Your task to perform on an android device: make emails show in primary in the gmail app Image 0: 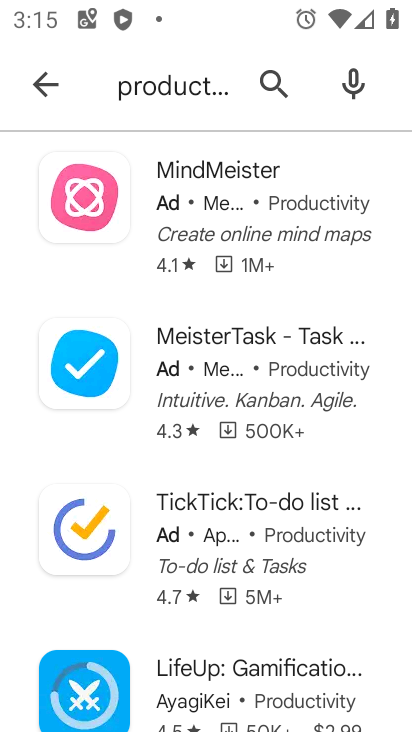
Step 0: press home button
Your task to perform on an android device: make emails show in primary in the gmail app Image 1: 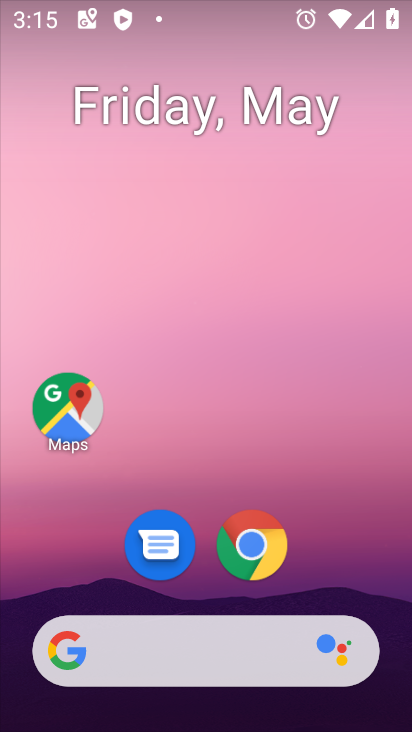
Step 1: drag from (360, 549) to (295, 137)
Your task to perform on an android device: make emails show in primary in the gmail app Image 2: 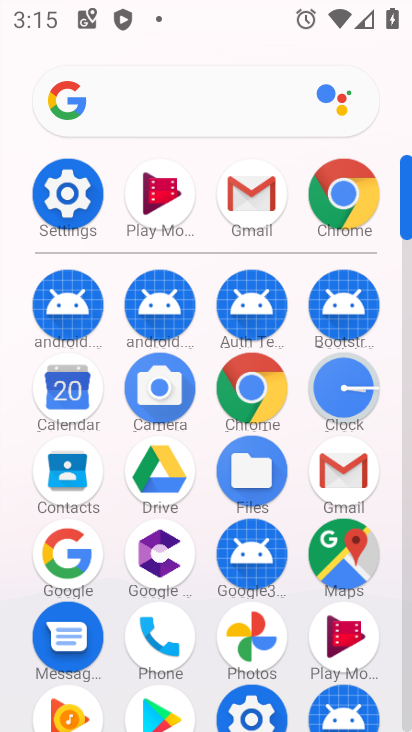
Step 2: click (255, 194)
Your task to perform on an android device: make emails show in primary in the gmail app Image 3: 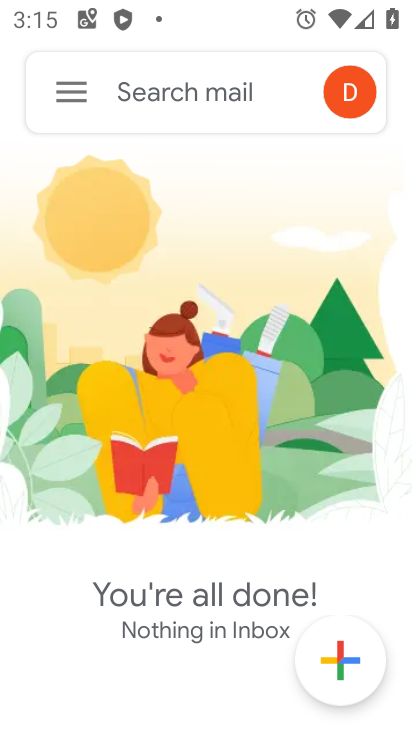
Step 3: click (76, 95)
Your task to perform on an android device: make emails show in primary in the gmail app Image 4: 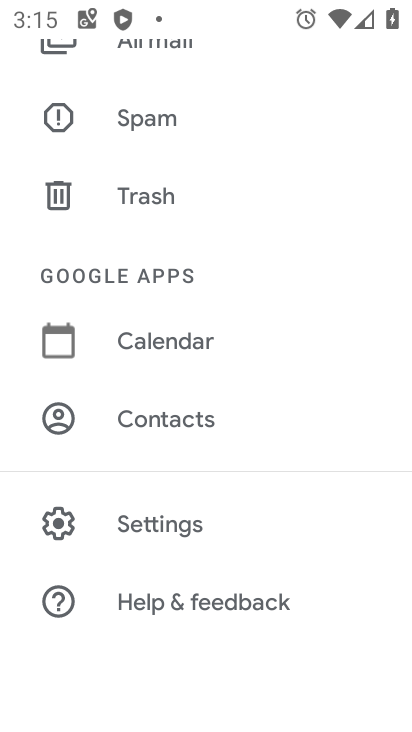
Step 4: click (176, 527)
Your task to perform on an android device: make emails show in primary in the gmail app Image 5: 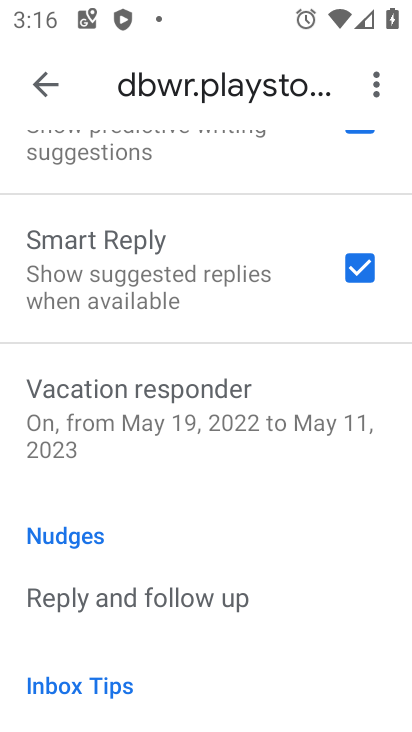
Step 5: drag from (310, 611) to (211, 214)
Your task to perform on an android device: make emails show in primary in the gmail app Image 6: 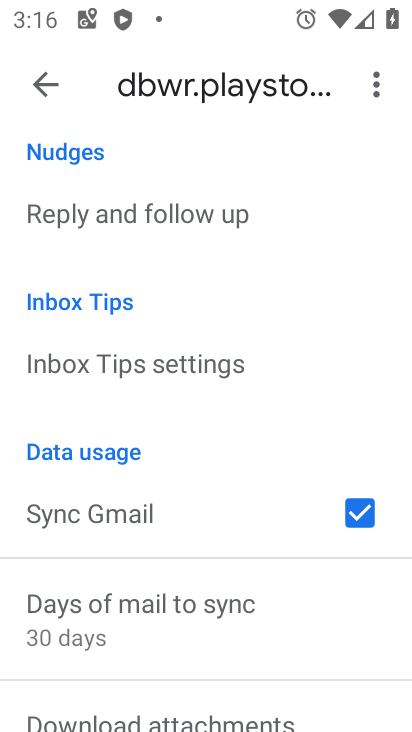
Step 6: drag from (291, 272) to (302, 588)
Your task to perform on an android device: make emails show in primary in the gmail app Image 7: 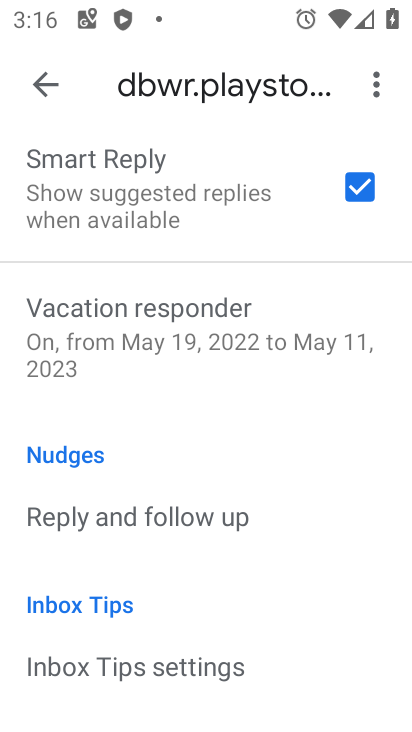
Step 7: drag from (277, 225) to (311, 537)
Your task to perform on an android device: make emails show in primary in the gmail app Image 8: 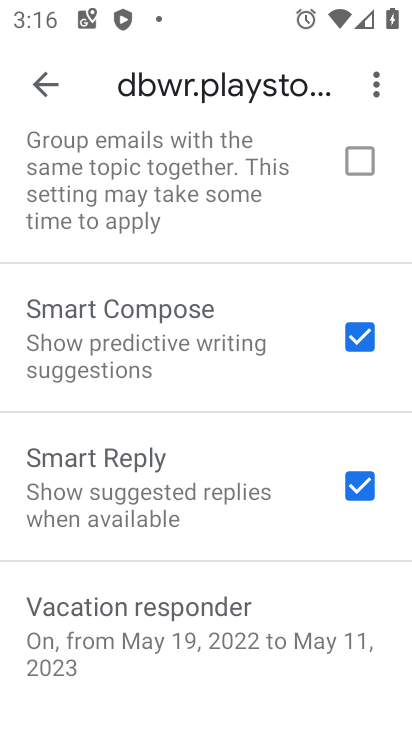
Step 8: drag from (282, 301) to (307, 647)
Your task to perform on an android device: make emails show in primary in the gmail app Image 9: 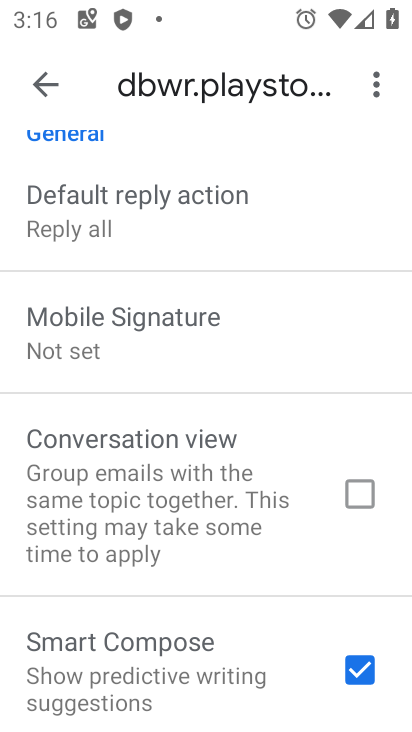
Step 9: drag from (310, 324) to (276, 627)
Your task to perform on an android device: make emails show in primary in the gmail app Image 10: 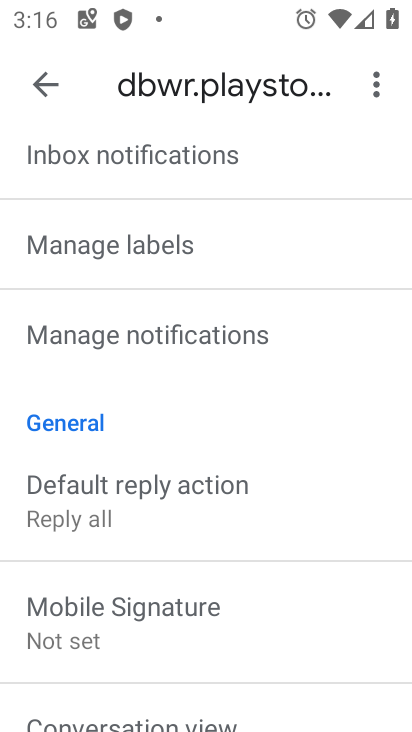
Step 10: drag from (306, 243) to (271, 627)
Your task to perform on an android device: make emails show in primary in the gmail app Image 11: 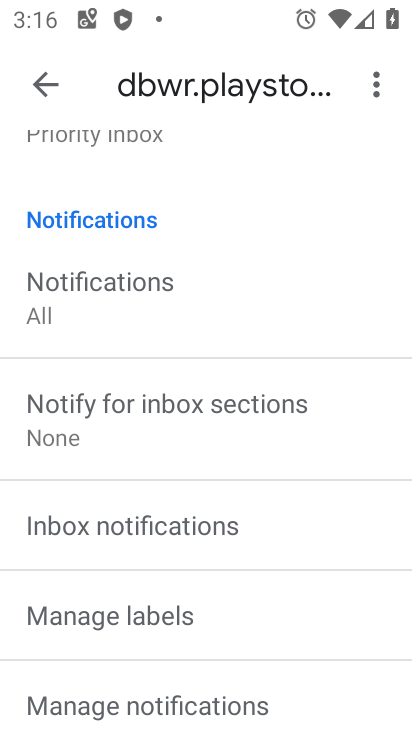
Step 11: drag from (235, 241) to (236, 491)
Your task to perform on an android device: make emails show in primary in the gmail app Image 12: 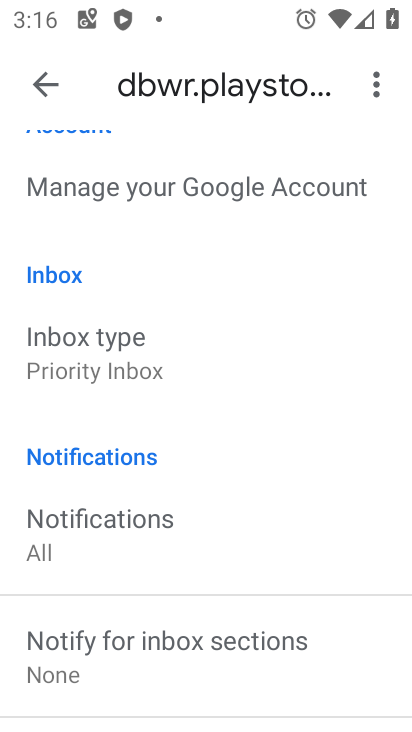
Step 12: click (175, 348)
Your task to perform on an android device: make emails show in primary in the gmail app Image 13: 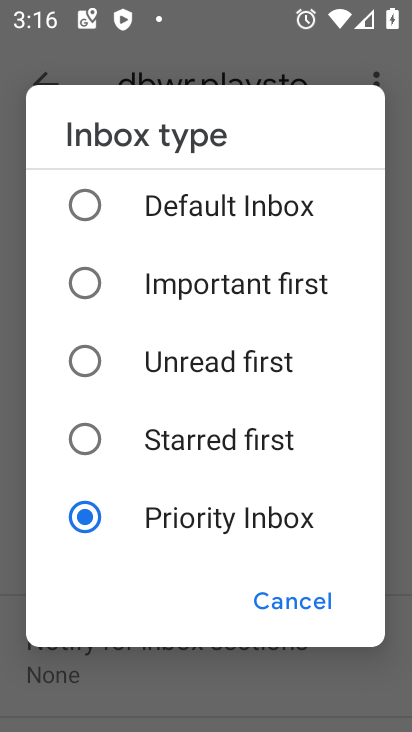
Step 13: click (87, 203)
Your task to perform on an android device: make emails show in primary in the gmail app Image 14: 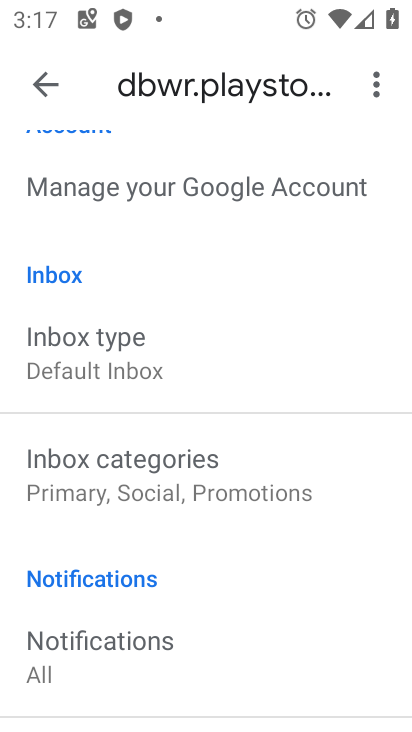
Step 14: click (149, 472)
Your task to perform on an android device: make emails show in primary in the gmail app Image 15: 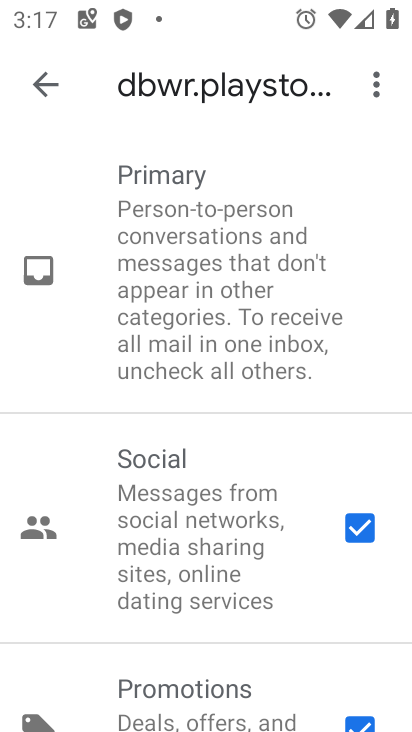
Step 15: click (361, 528)
Your task to perform on an android device: make emails show in primary in the gmail app Image 16: 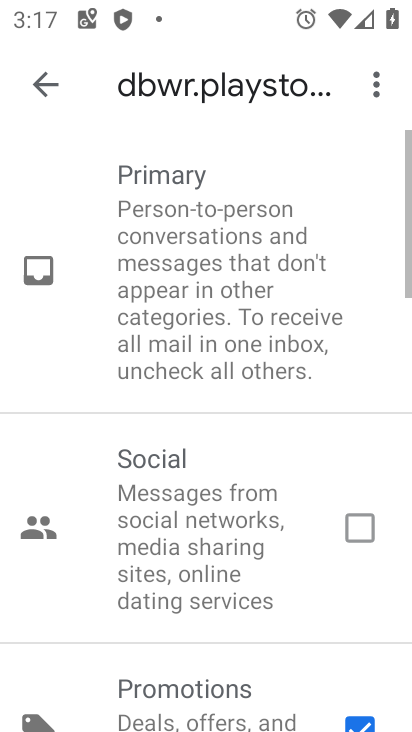
Step 16: click (363, 721)
Your task to perform on an android device: make emails show in primary in the gmail app Image 17: 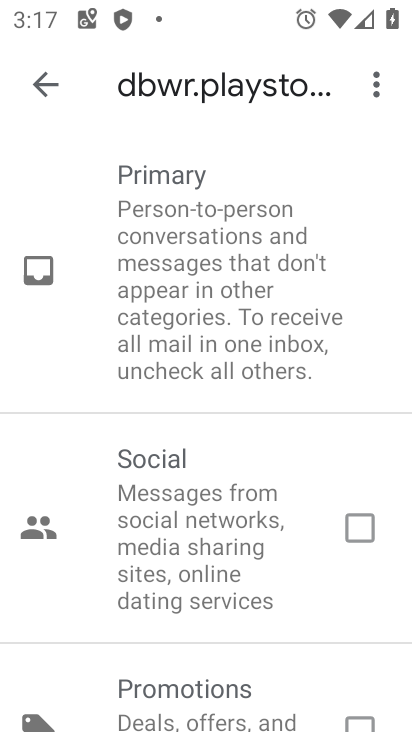
Step 17: task complete